Your task to perform on an android device: turn off translation in the chrome app Image 0: 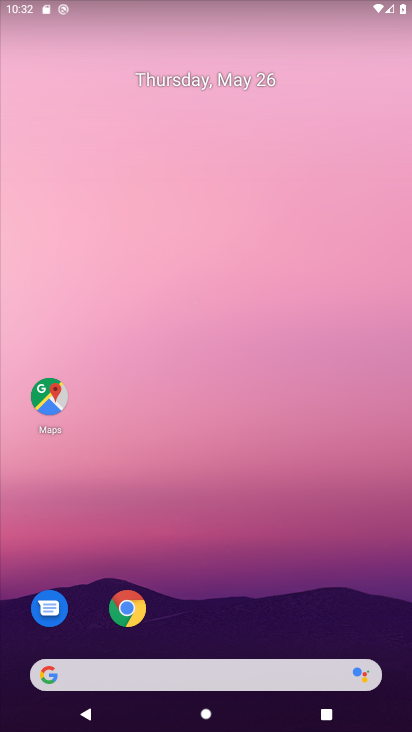
Step 0: click (133, 612)
Your task to perform on an android device: turn off translation in the chrome app Image 1: 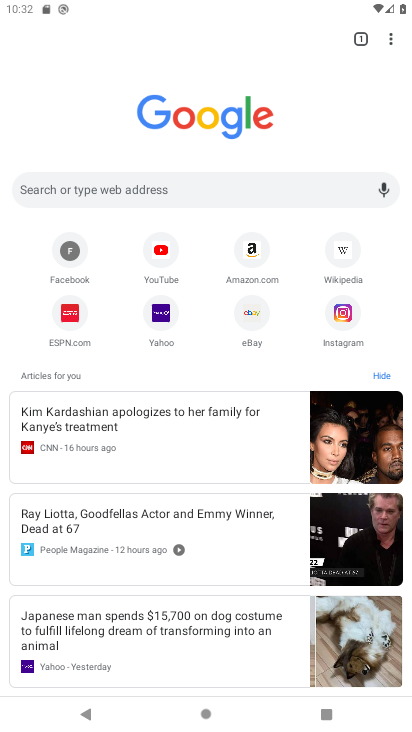
Step 1: click (388, 36)
Your task to perform on an android device: turn off translation in the chrome app Image 2: 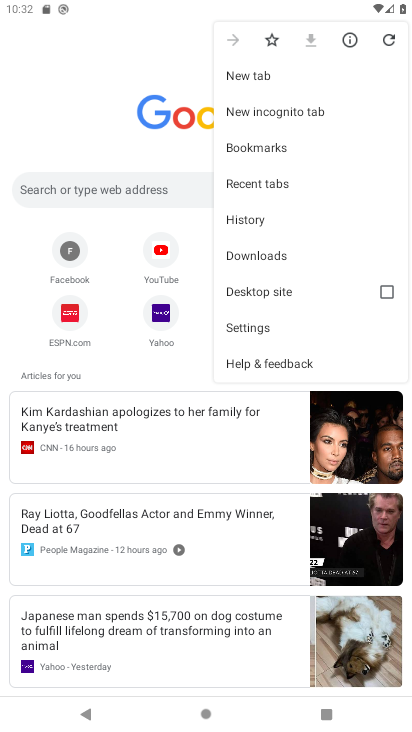
Step 2: click (255, 325)
Your task to perform on an android device: turn off translation in the chrome app Image 3: 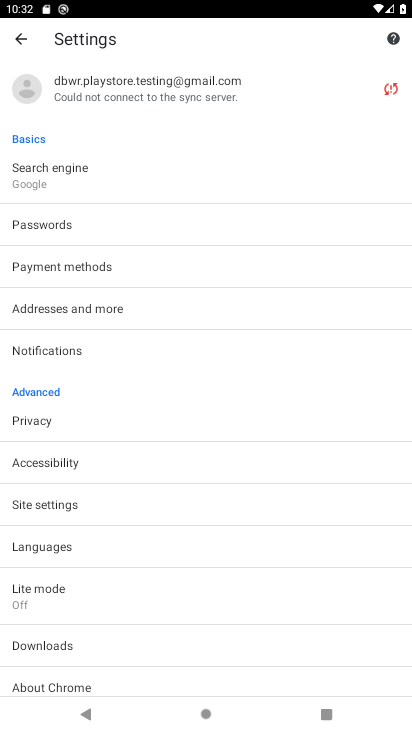
Step 3: click (82, 551)
Your task to perform on an android device: turn off translation in the chrome app Image 4: 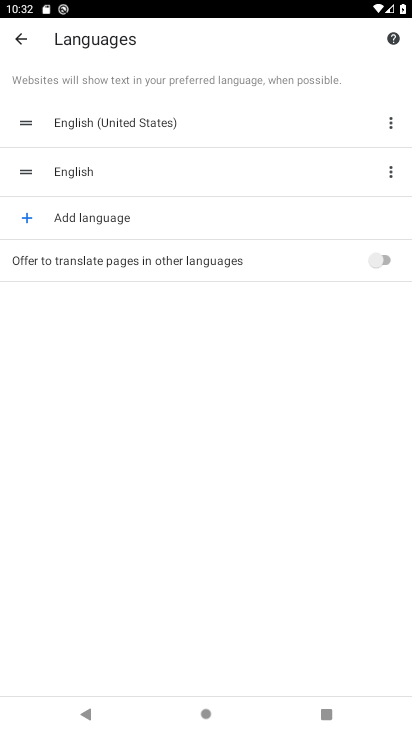
Step 4: click (382, 254)
Your task to perform on an android device: turn off translation in the chrome app Image 5: 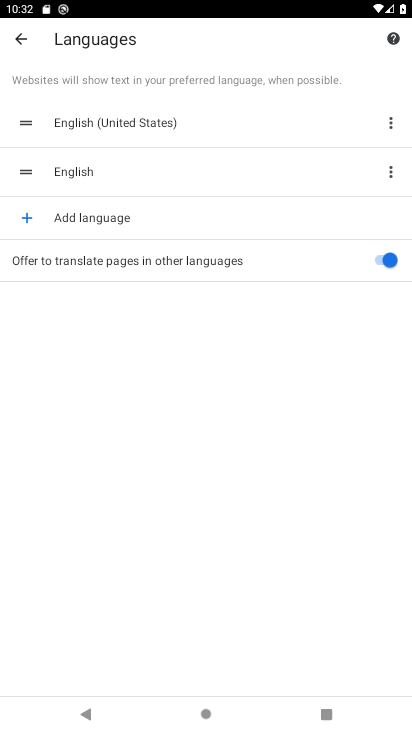
Step 5: task complete